Your task to perform on an android device: What's the weather going to be this weekend? Image 0: 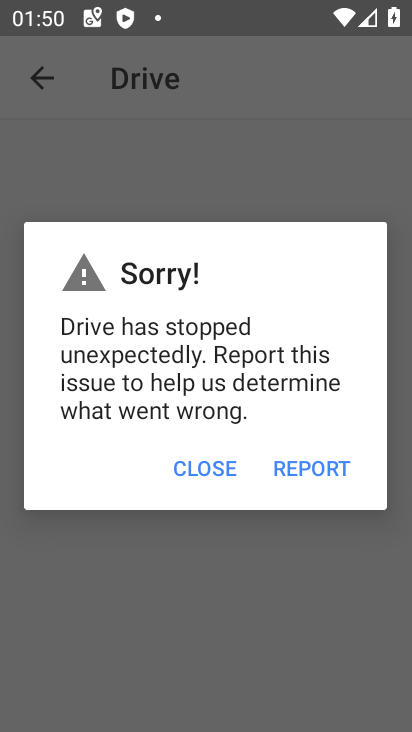
Step 0: press home button
Your task to perform on an android device: What's the weather going to be this weekend? Image 1: 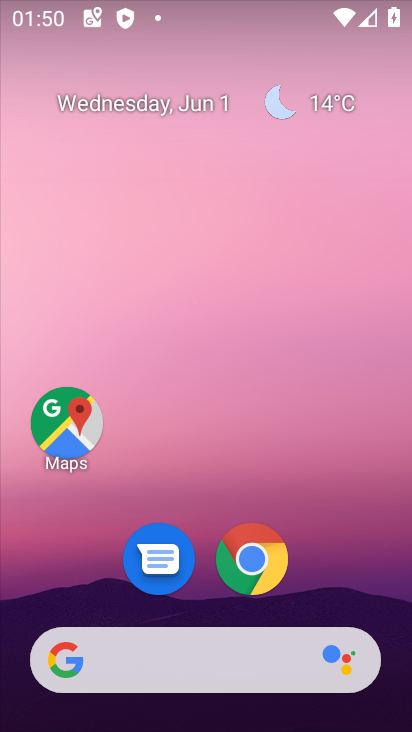
Step 1: click (328, 104)
Your task to perform on an android device: What's the weather going to be this weekend? Image 2: 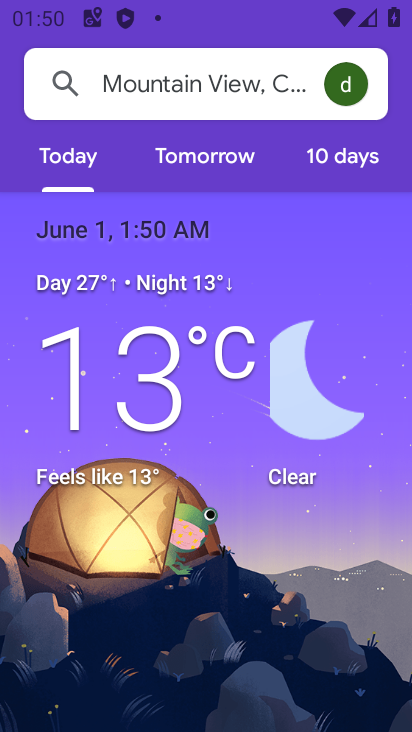
Step 2: click (335, 147)
Your task to perform on an android device: What's the weather going to be this weekend? Image 3: 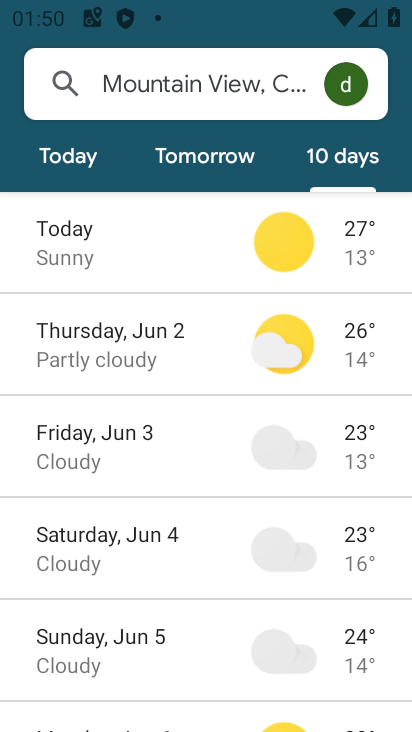
Step 3: task complete